Your task to perform on an android device: uninstall "Instagram" Image 0: 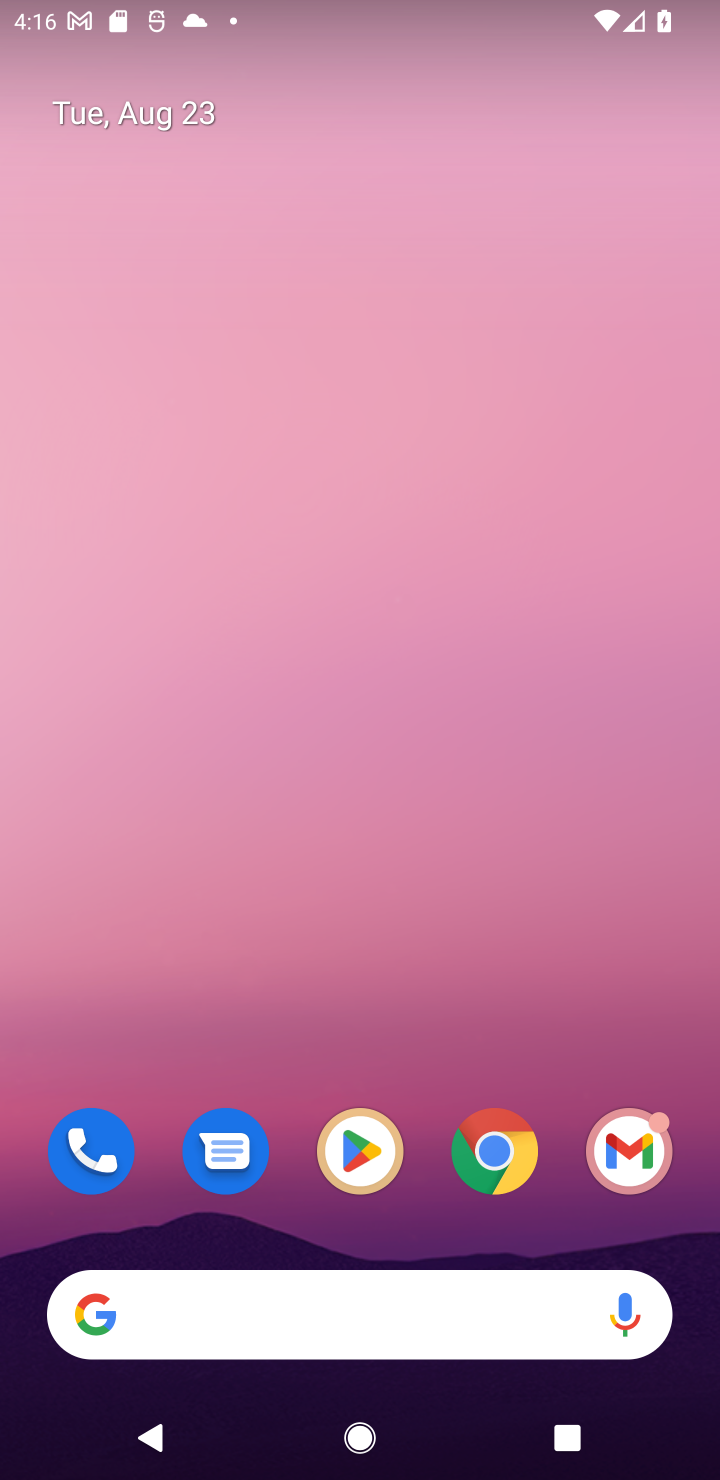
Step 0: click (373, 1146)
Your task to perform on an android device: uninstall "Instagram" Image 1: 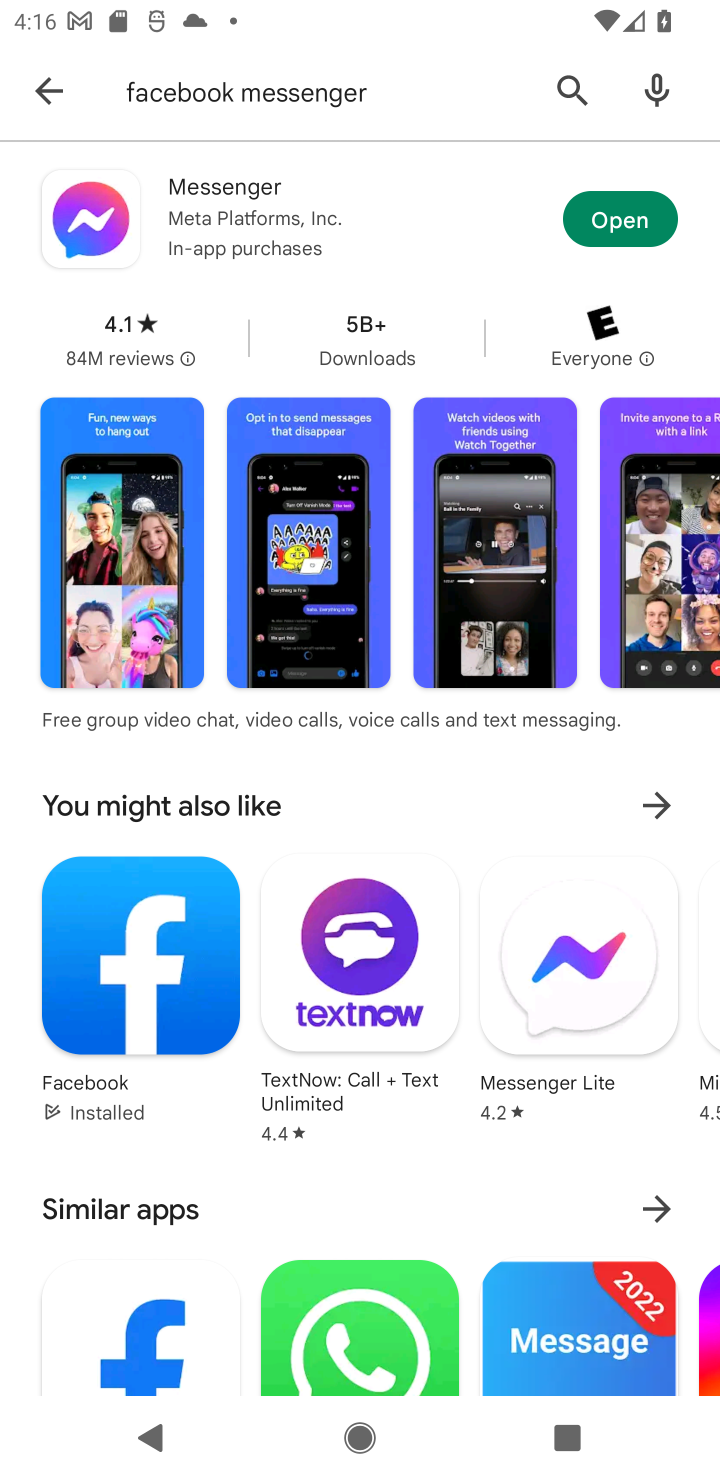
Step 1: click (558, 89)
Your task to perform on an android device: uninstall "Instagram" Image 2: 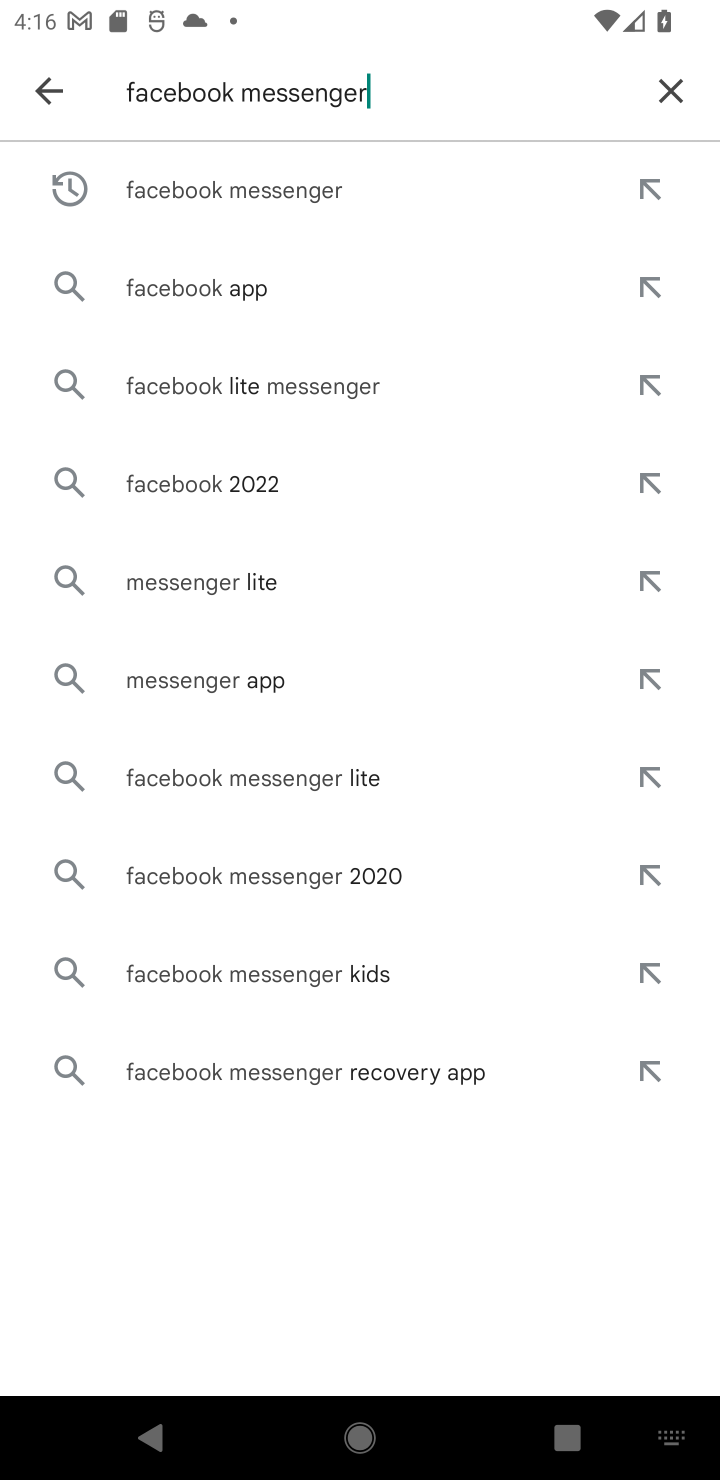
Step 2: click (671, 77)
Your task to perform on an android device: uninstall "Instagram" Image 3: 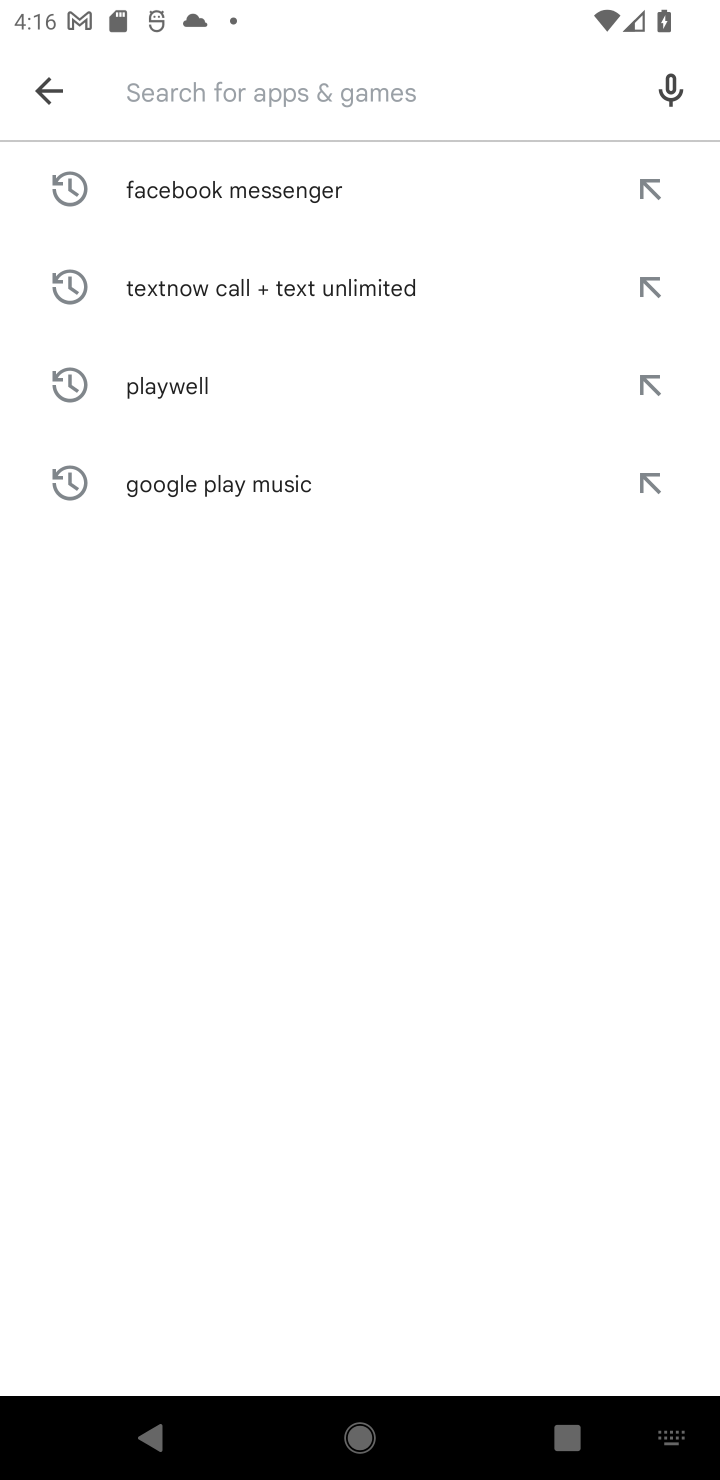
Step 3: type "Instagram"
Your task to perform on an android device: uninstall "Instagram" Image 4: 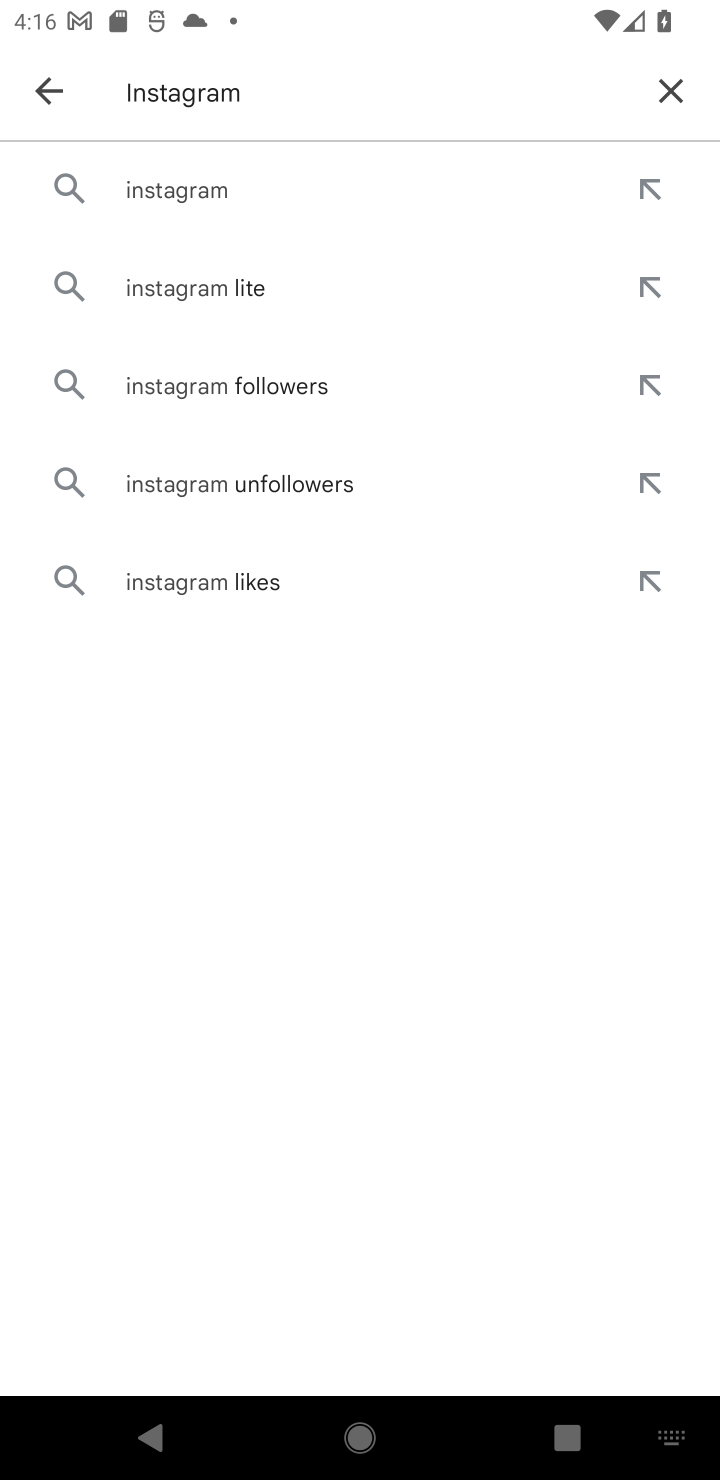
Step 4: click (210, 196)
Your task to perform on an android device: uninstall "Instagram" Image 5: 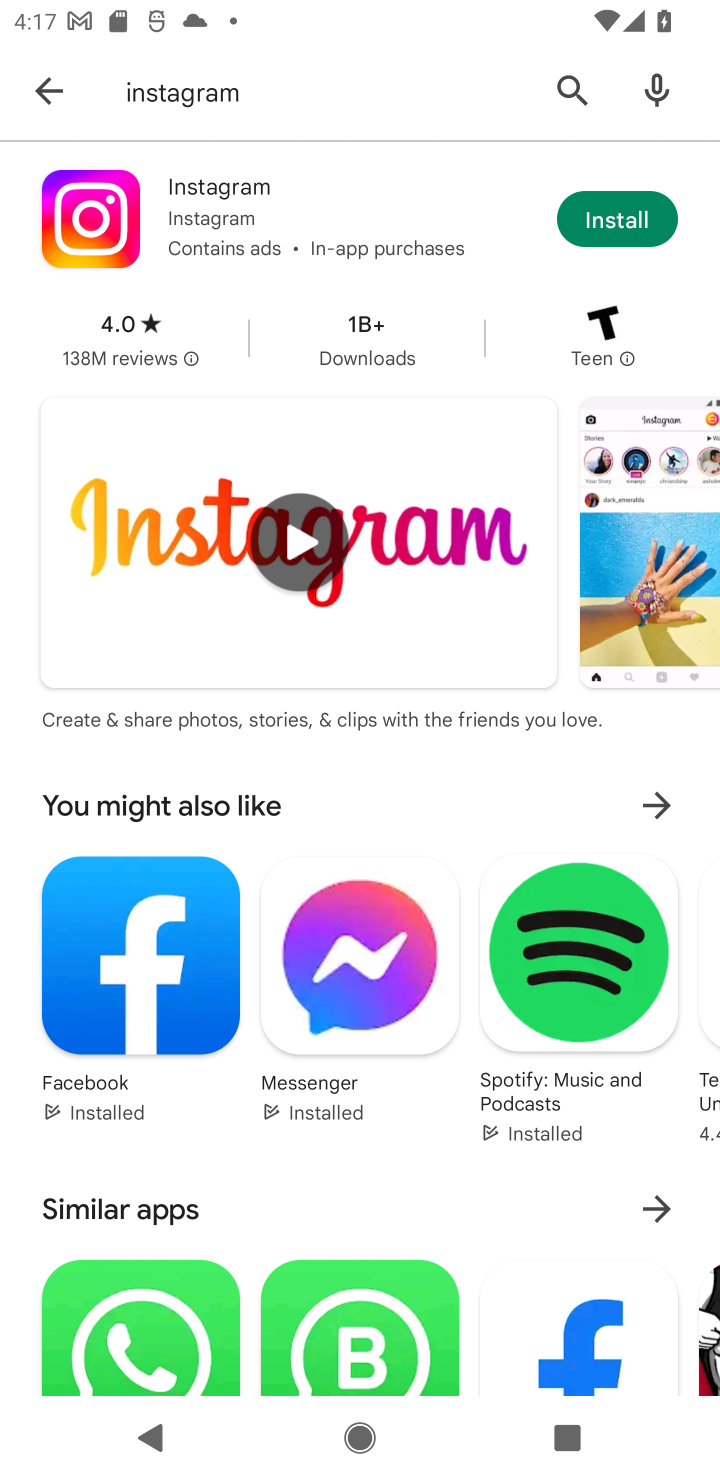
Step 5: task complete